Your task to perform on an android device: set default search engine in the chrome app Image 0: 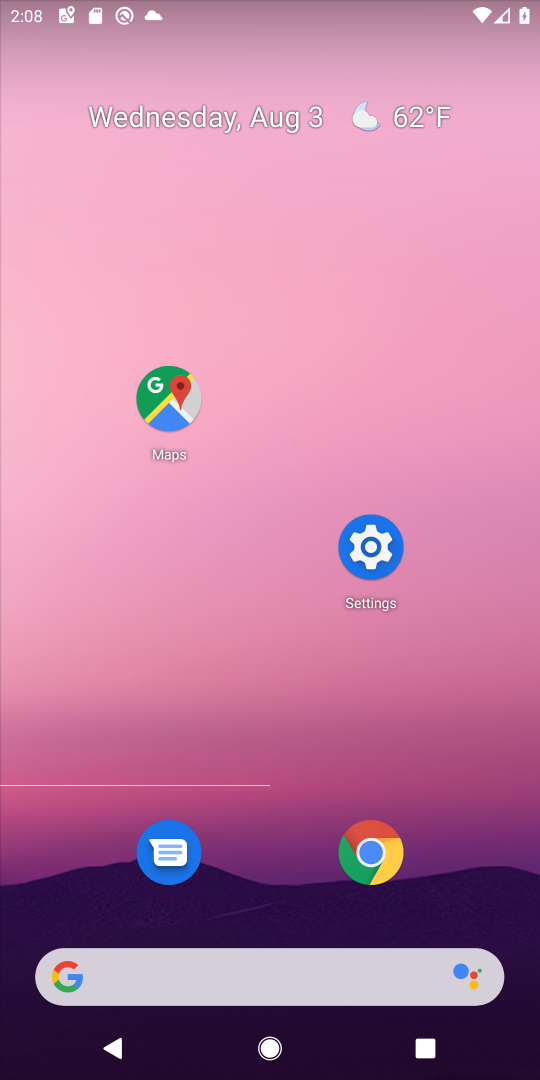
Step 0: press home button
Your task to perform on an android device: set default search engine in the chrome app Image 1: 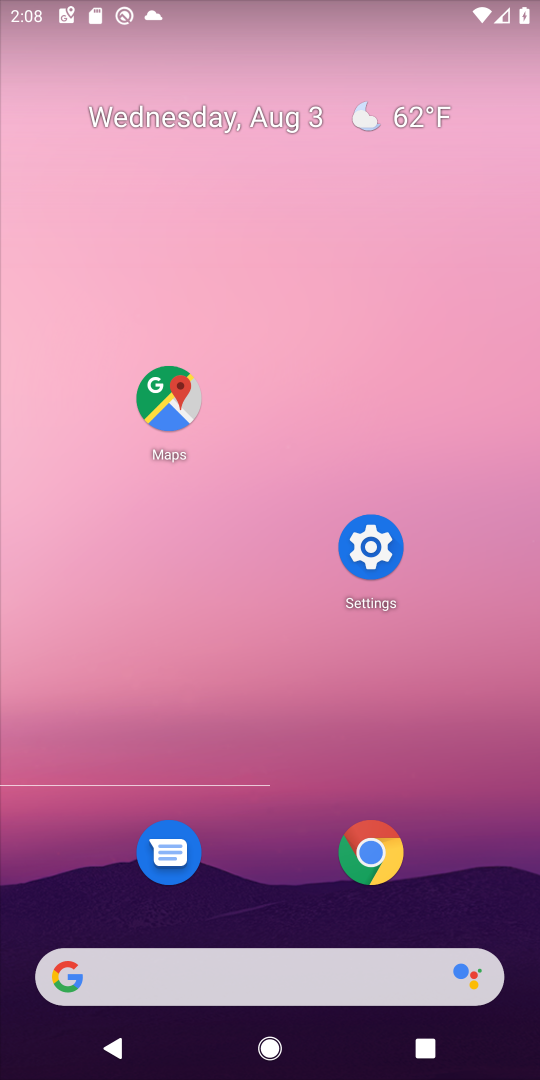
Step 1: click (383, 847)
Your task to perform on an android device: set default search engine in the chrome app Image 2: 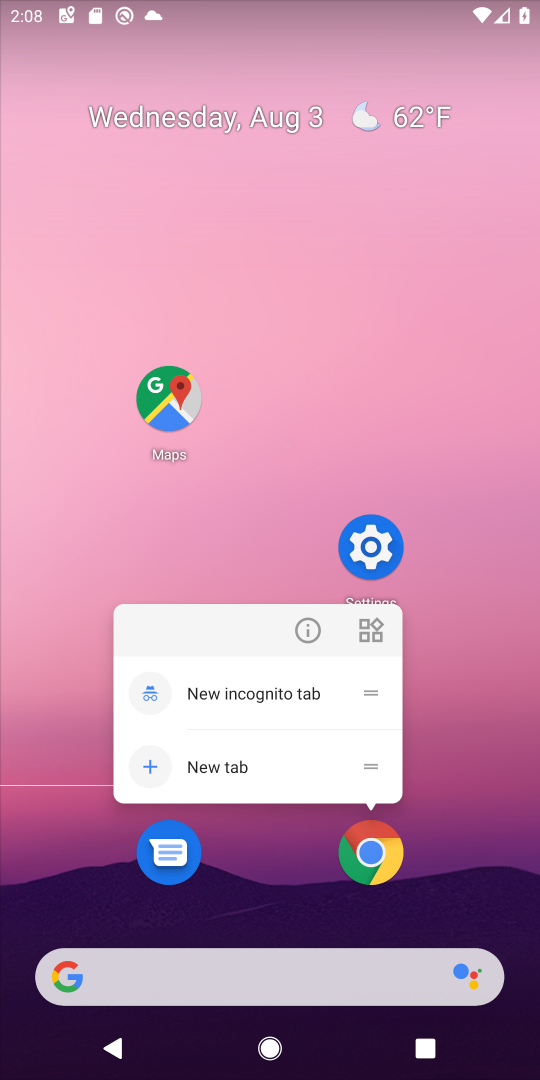
Step 2: click (375, 858)
Your task to perform on an android device: set default search engine in the chrome app Image 3: 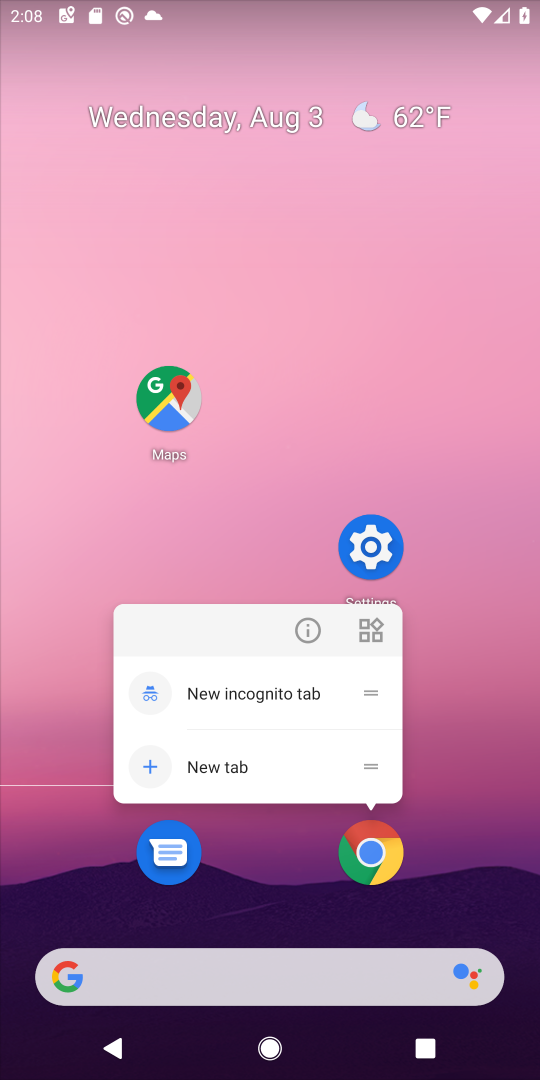
Step 3: click (375, 858)
Your task to perform on an android device: set default search engine in the chrome app Image 4: 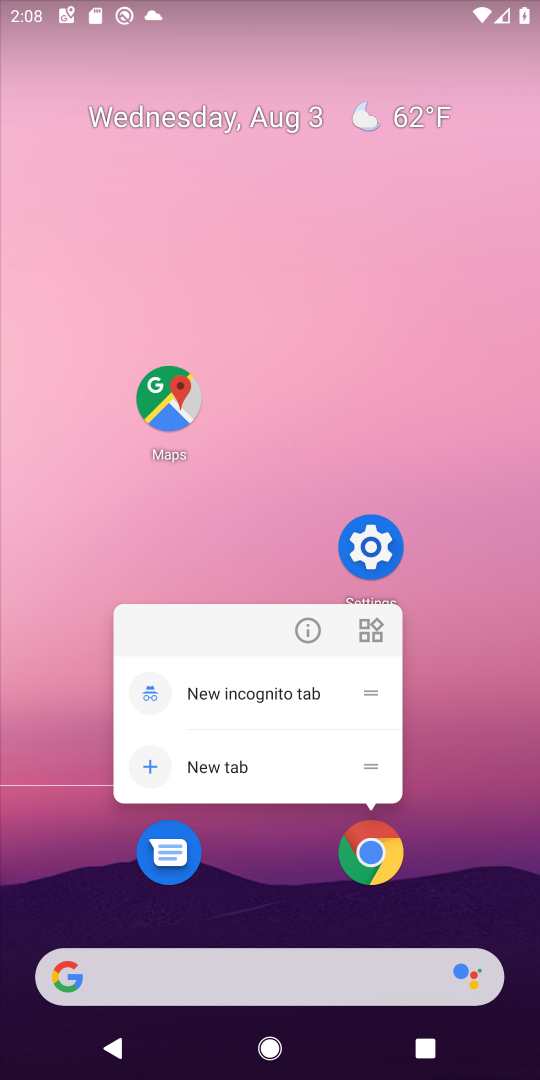
Step 4: click (375, 859)
Your task to perform on an android device: set default search engine in the chrome app Image 5: 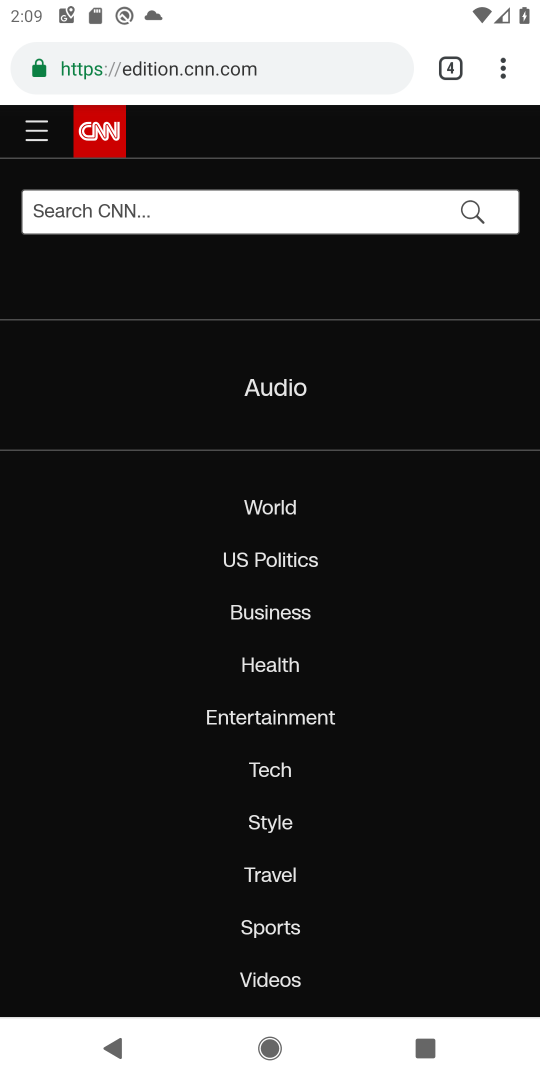
Step 5: drag from (499, 65) to (297, 898)
Your task to perform on an android device: set default search engine in the chrome app Image 6: 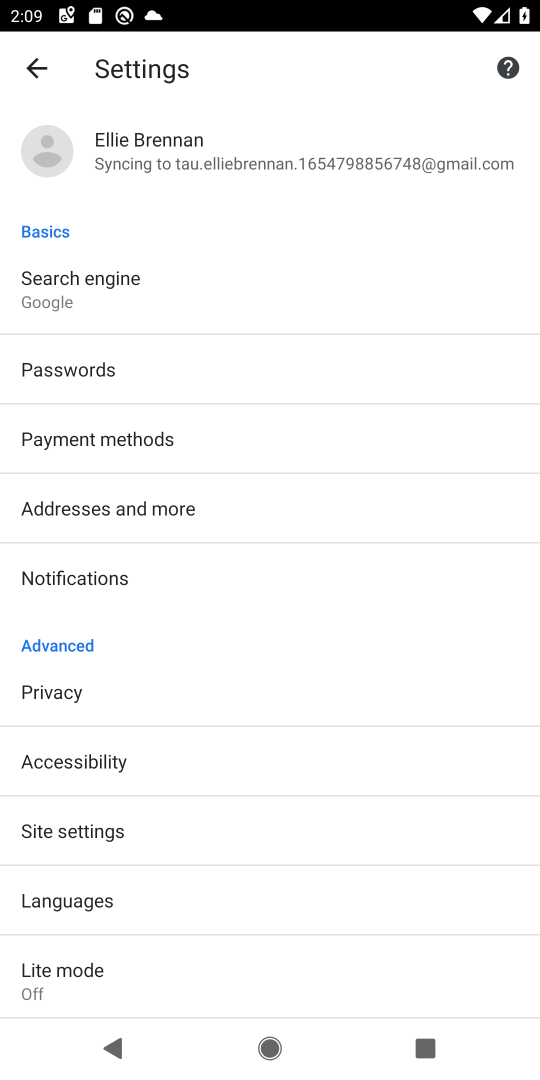
Step 6: click (92, 288)
Your task to perform on an android device: set default search engine in the chrome app Image 7: 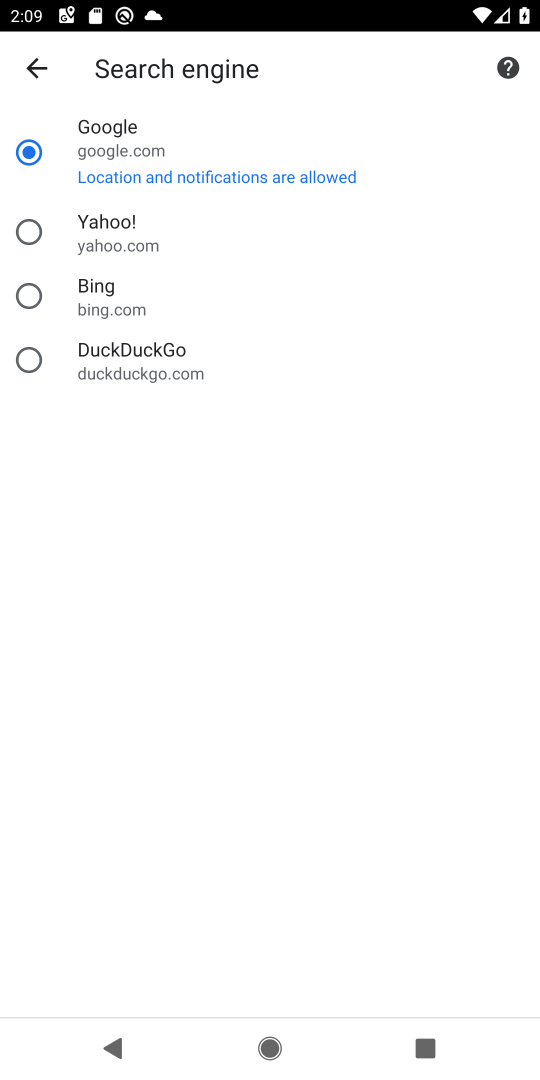
Step 7: click (29, 223)
Your task to perform on an android device: set default search engine in the chrome app Image 8: 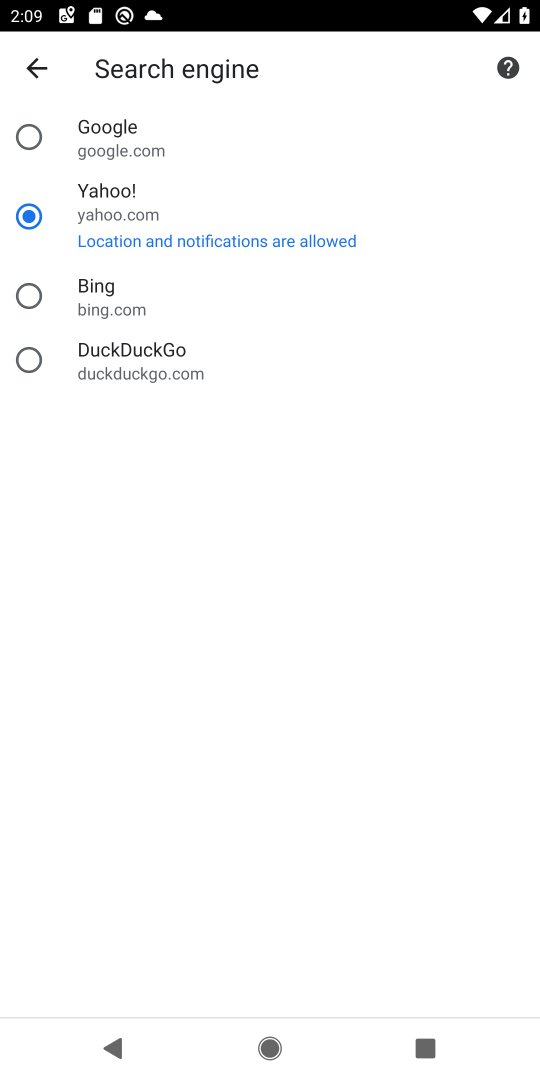
Step 8: task complete